Your task to perform on an android device: Show me popular games on the Play Store Image 0: 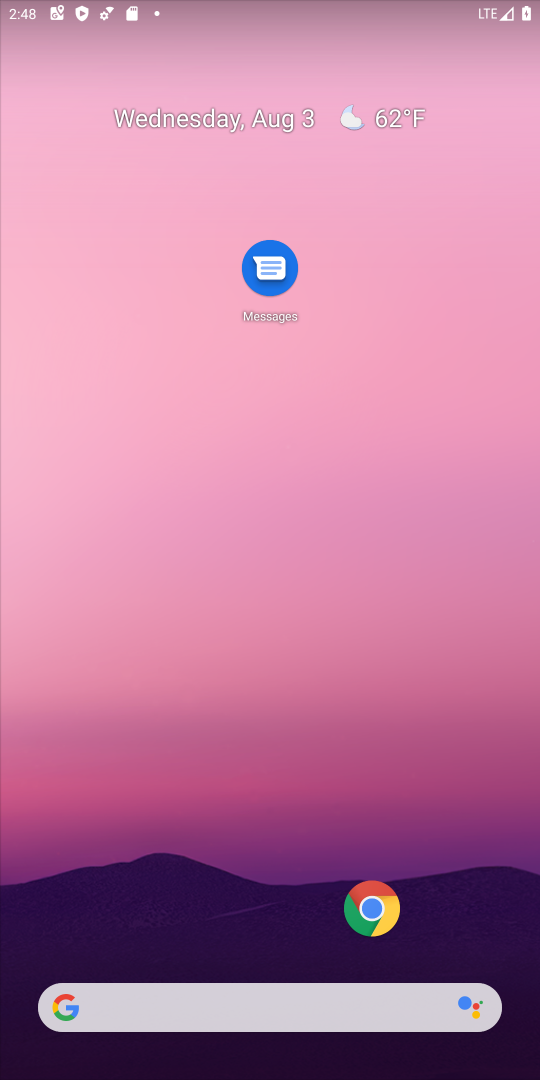
Step 0: drag from (222, 1049) to (312, 70)
Your task to perform on an android device: Show me popular games on the Play Store Image 1: 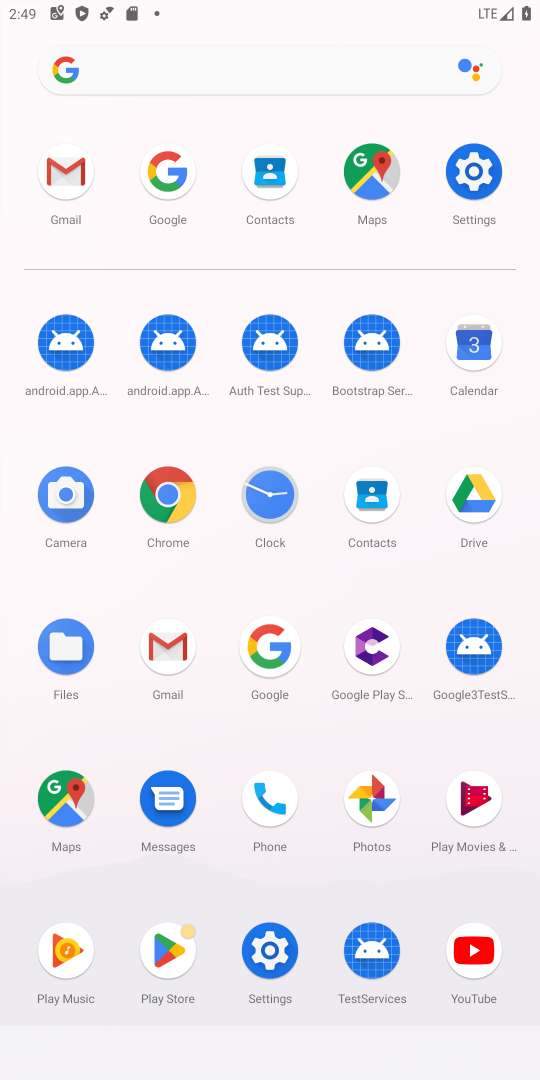
Step 1: click (472, 949)
Your task to perform on an android device: Show me popular games on the Play Store Image 2: 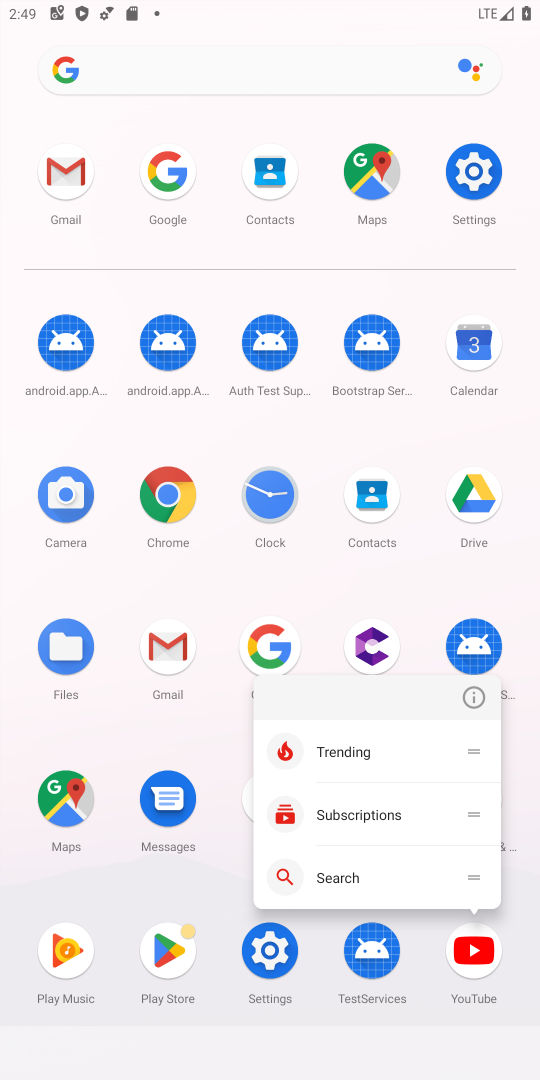
Step 2: click (495, 974)
Your task to perform on an android device: Show me popular games on the Play Store Image 3: 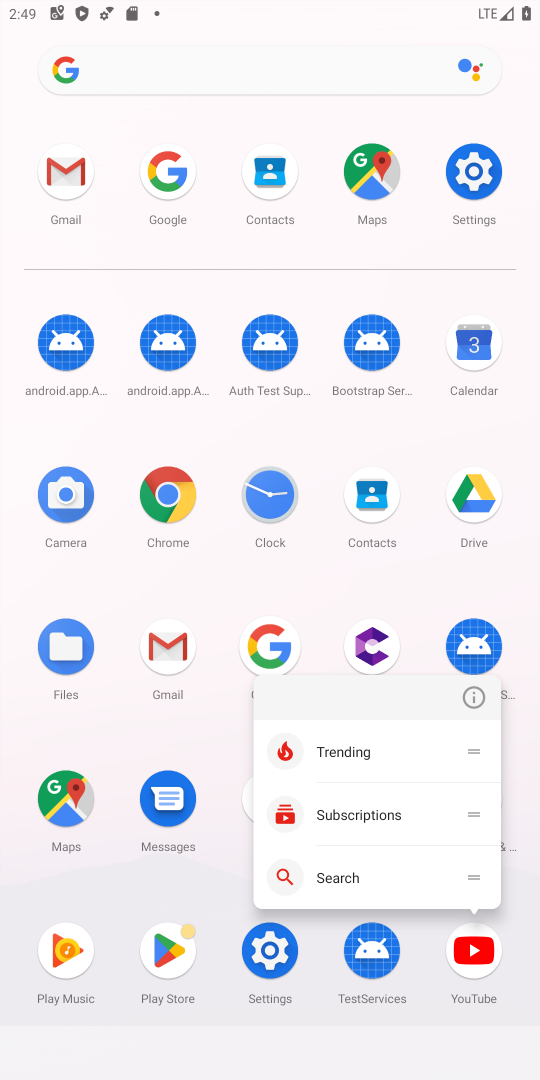
Step 3: click (463, 974)
Your task to perform on an android device: Show me popular games on the Play Store Image 4: 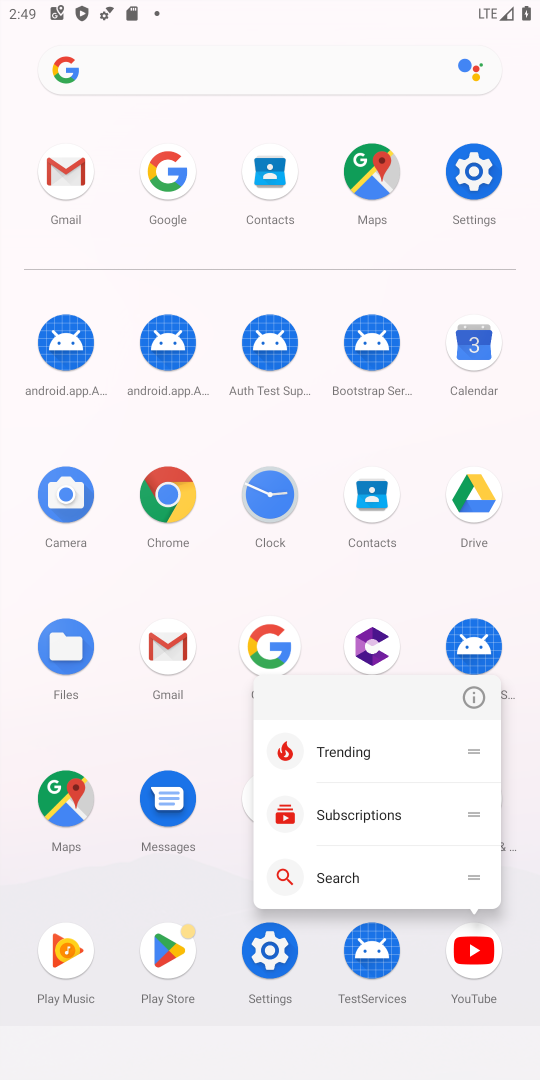
Step 4: click (168, 959)
Your task to perform on an android device: Show me popular games on the Play Store Image 5: 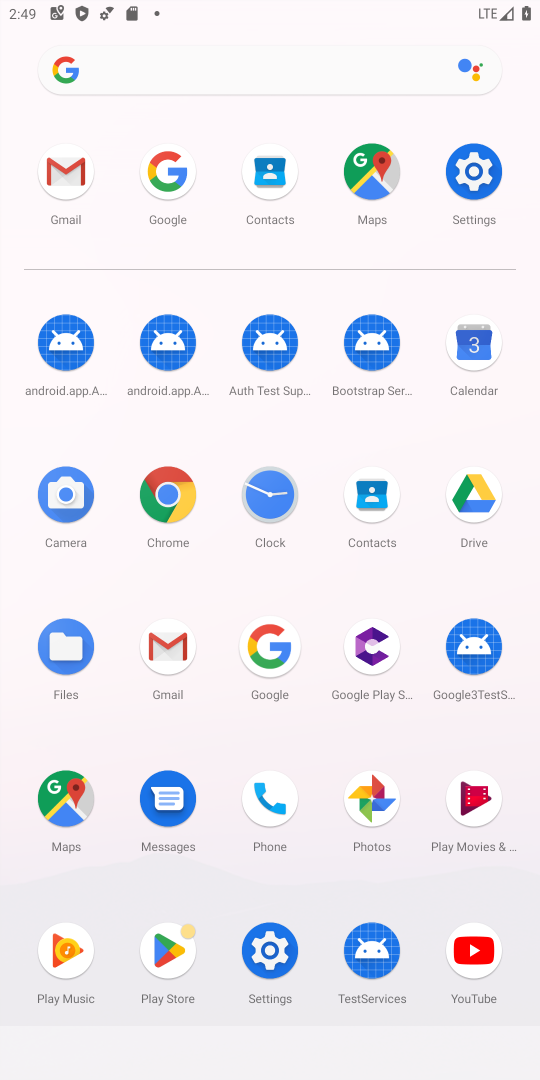
Step 5: click (168, 959)
Your task to perform on an android device: Show me popular games on the Play Store Image 6: 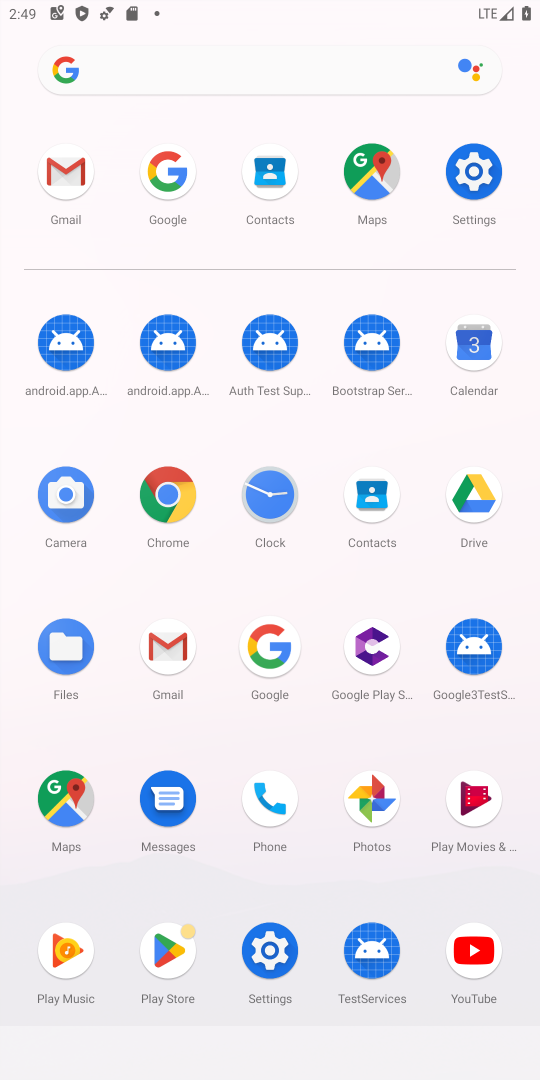
Step 6: click (168, 959)
Your task to perform on an android device: Show me popular games on the Play Store Image 7: 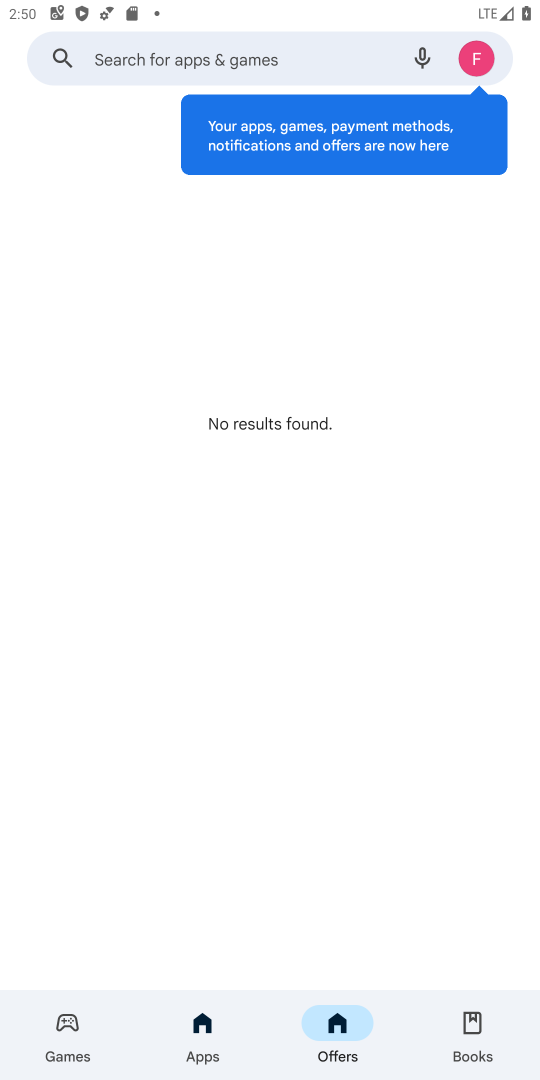
Step 7: task complete